Your task to perform on an android device: Toggle the flashlight Image 0: 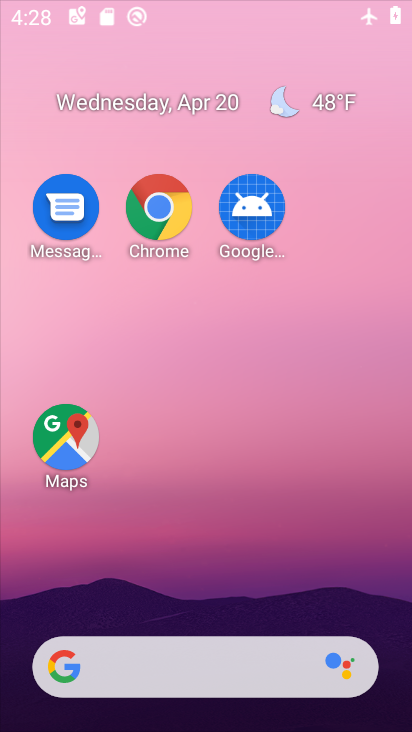
Step 0: drag from (236, 638) to (236, 84)
Your task to perform on an android device: Toggle the flashlight Image 1: 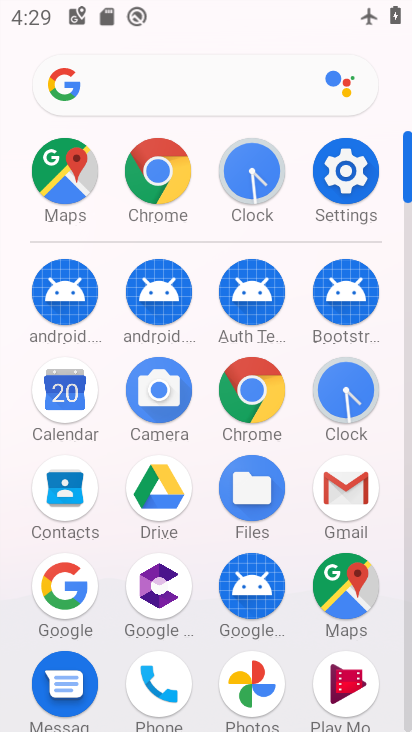
Step 1: drag from (306, 37) to (271, 328)
Your task to perform on an android device: Toggle the flashlight Image 2: 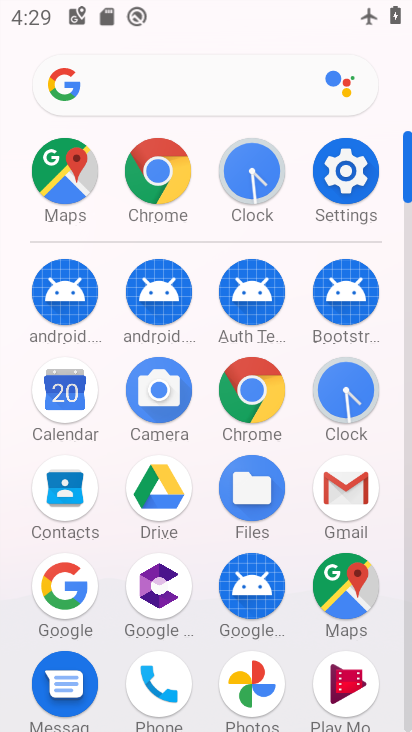
Step 2: drag from (287, 36) to (273, 447)
Your task to perform on an android device: Toggle the flashlight Image 3: 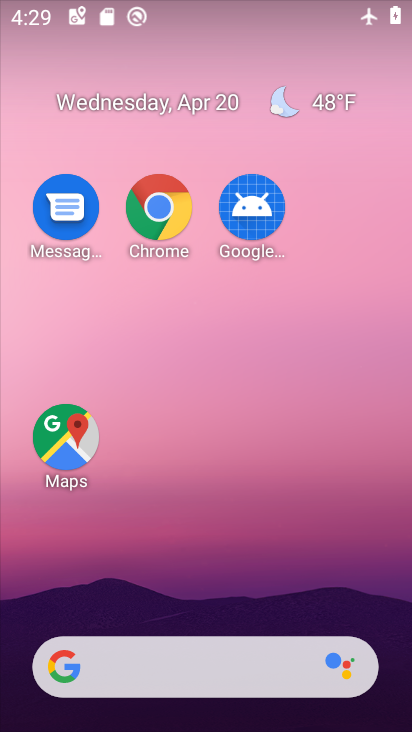
Step 3: drag from (305, 95) to (285, 482)
Your task to perform on an android device: Toggle the flashlight Image 4: 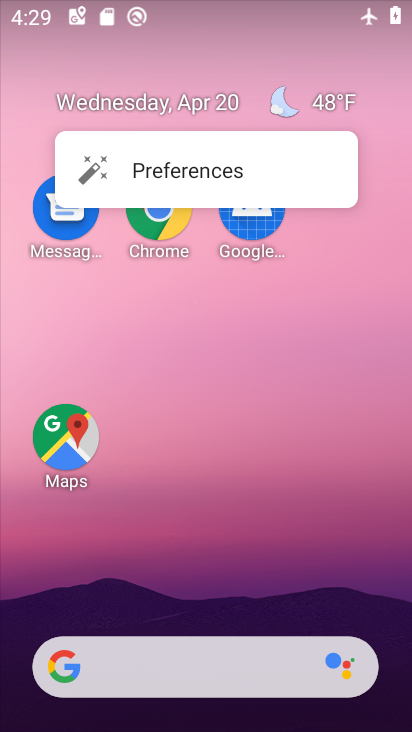
Step 4: click (368, 359)
Your task to perform on an android device: Toggle the flashlight Image 5: 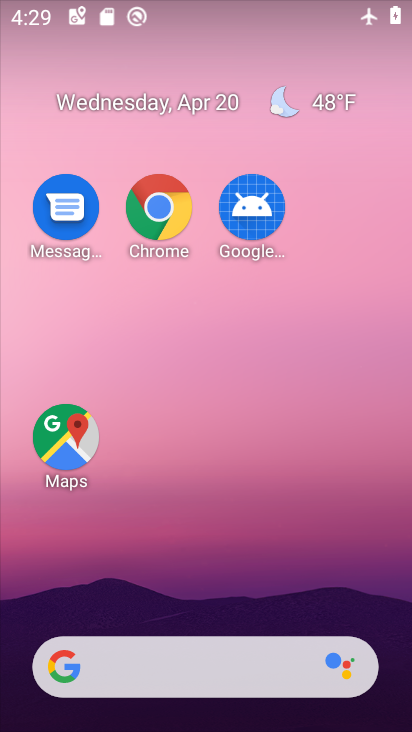
Step 5: task complete